Your task to perform on an android device: What time is it in Beijing? Image 0: 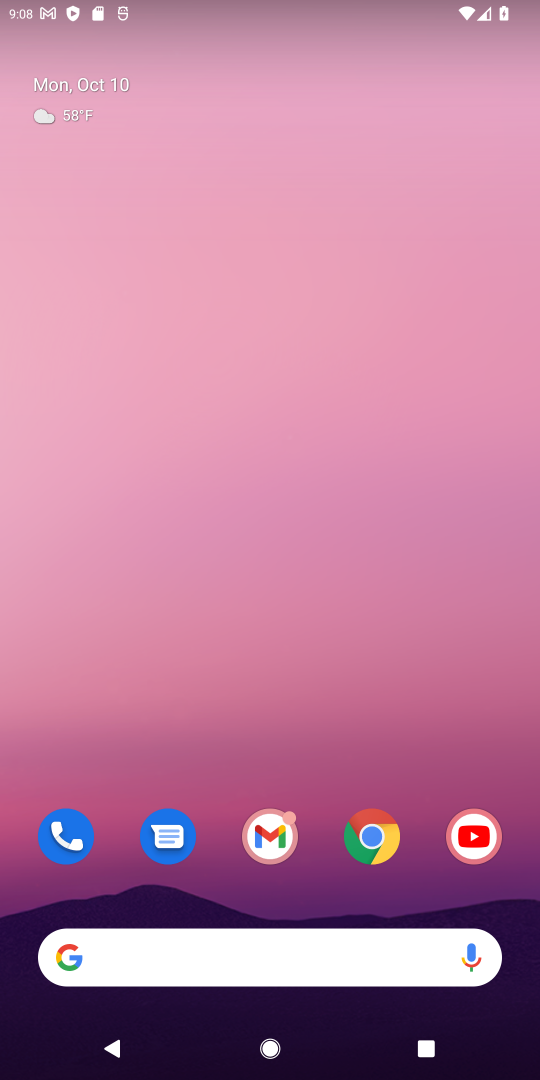
Step 0: drag from (239, 758) to (304, 163)
Your task to perform on an android device: What time is it in Beijing? Image 1: 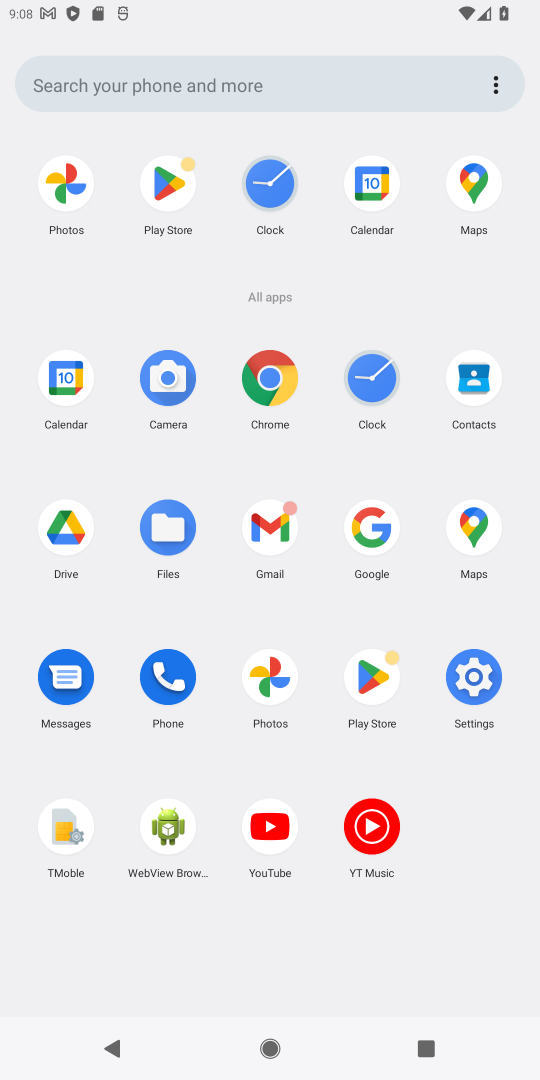
Step 1: click (373, 526)
Your task to perform on an android device: What time is it in Beijing? Image 2: 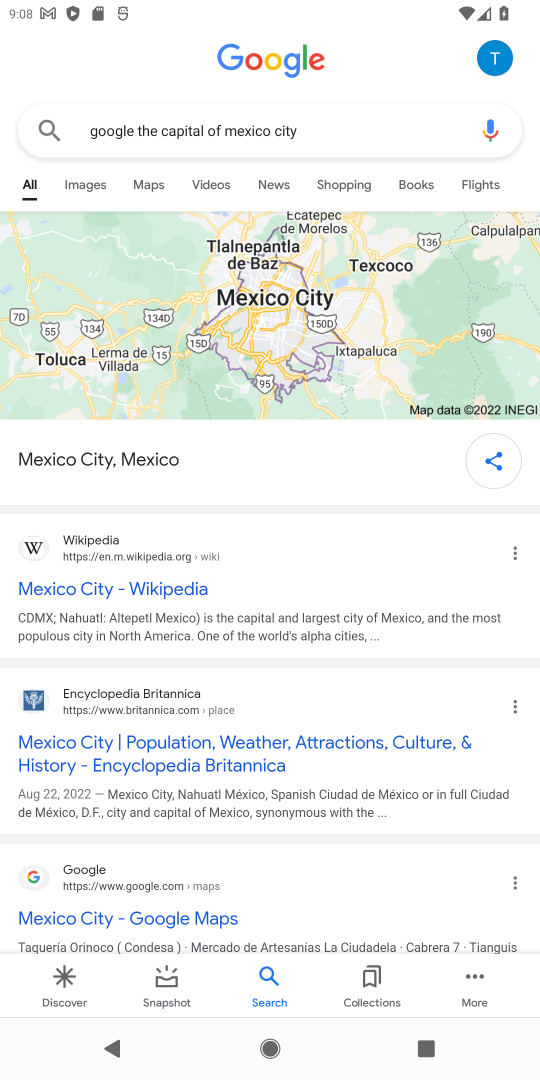
Step 2: click (292, 136)
Your task to perform on an android device: What time is it in Beijing? Image 3: 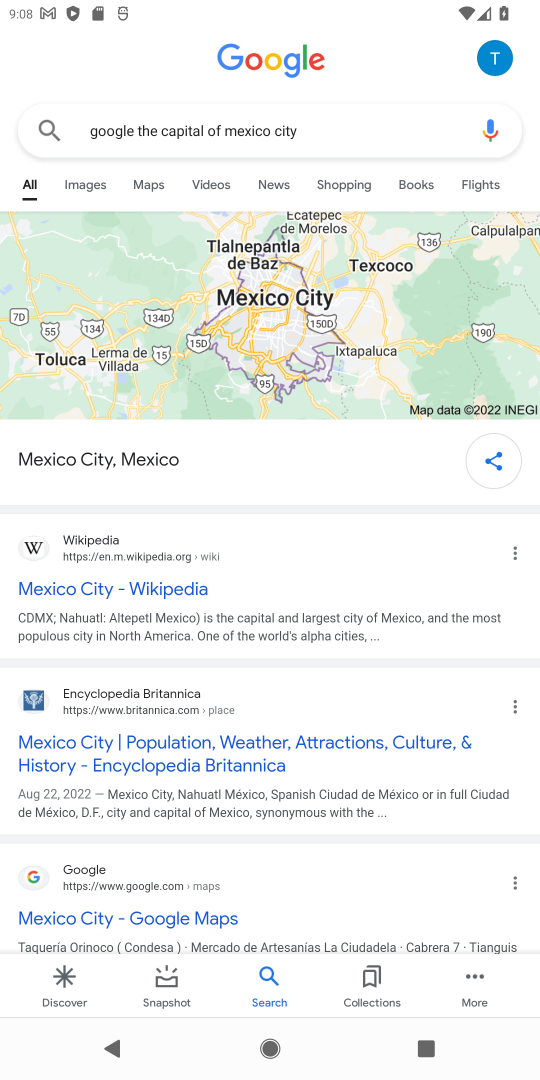
Step 3: click (292, 136)
Your task to perform on an android device: What time is it in Beijing? Image 4: 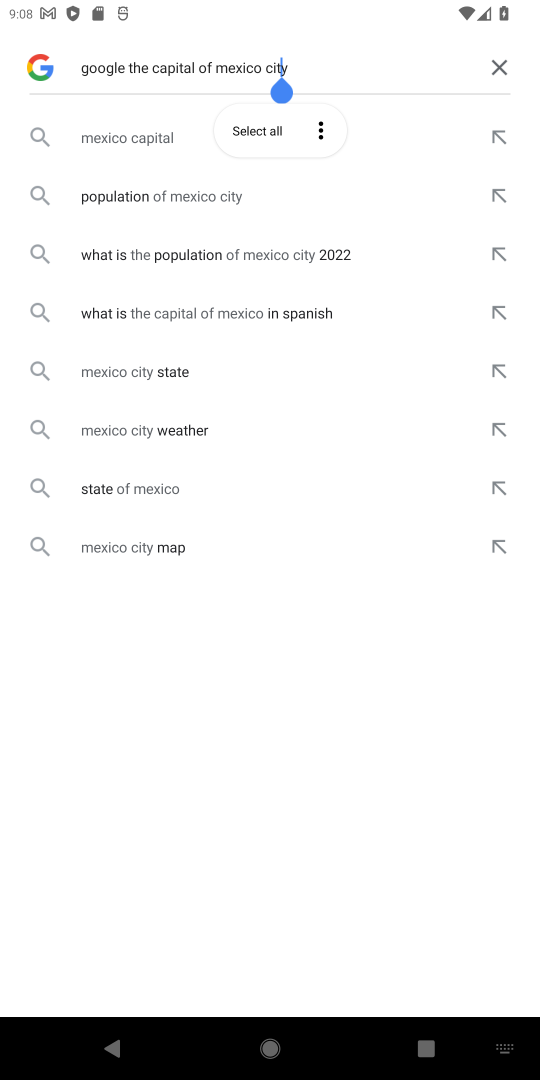
Step 4: click (497, 61)
Your task to perform on an android device: What time is it in Beijing? Image 5: 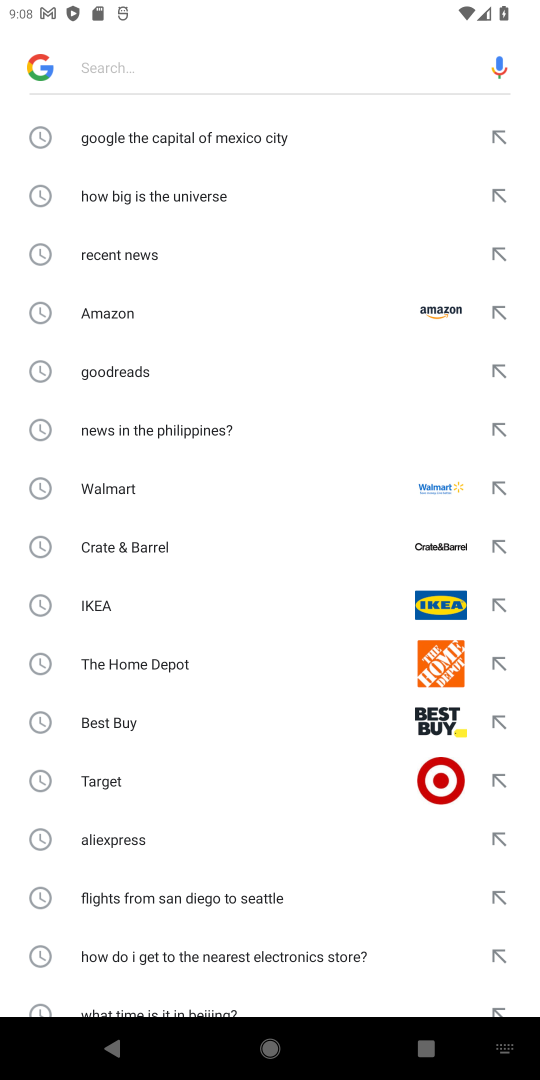
Step 5: type "What time is it in Beijing?"
Your task to perform on an android device: What time is it in Beijing? Image 6: 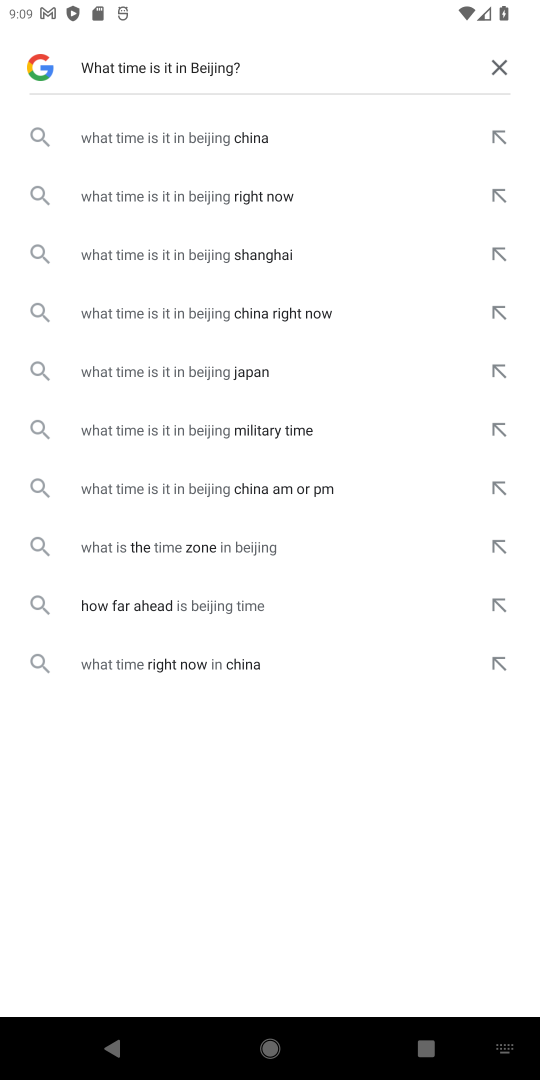
Step 6: click (190, 139)
Your task to perform on an android device: What time is it in Beijing? Image 7: 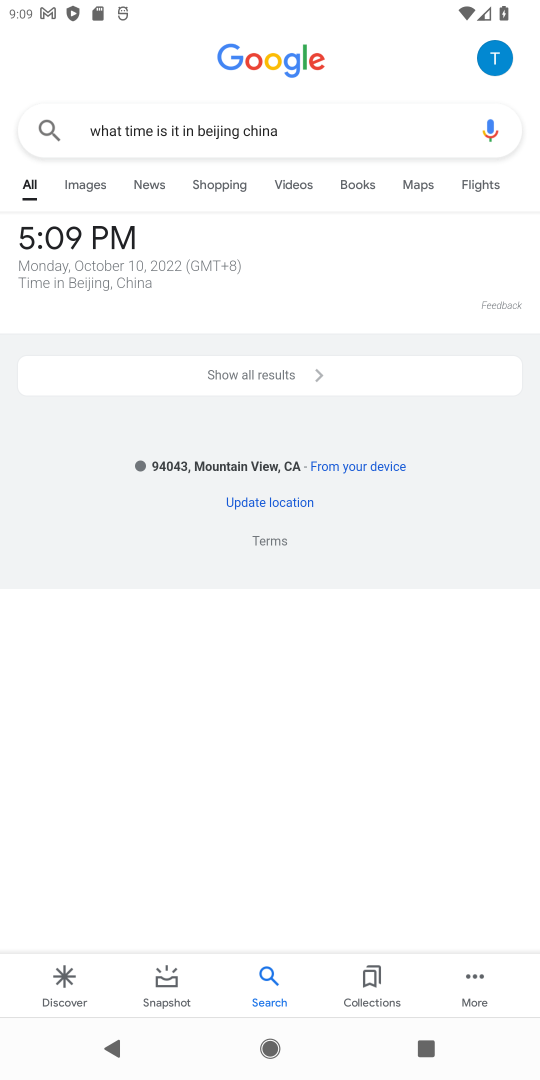
Step 7: task complete